Your task to perform on an android device: Show me popular games on the Play Store Image 0: 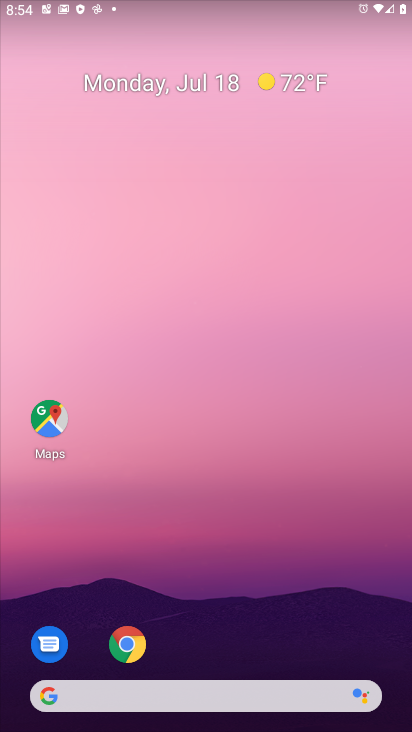
Step 0: drag from (399, 688) to (257, 113)
Your task to perform on an android device: Show me popular games on the Play Store Image 1: 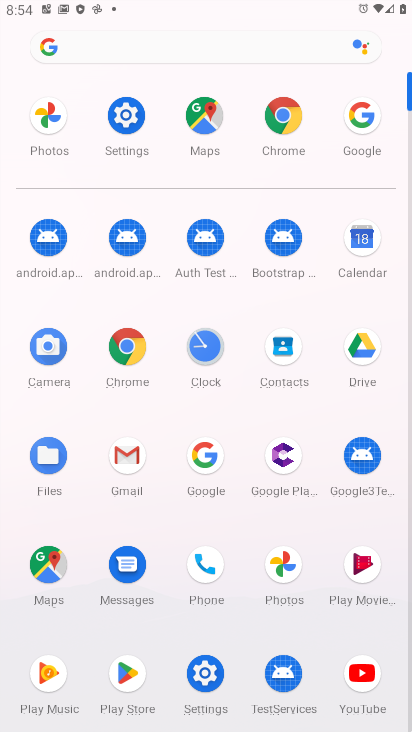
Step 1: click (133, 678)
Your task to perform on an android device: Show me popular games on the Play Store Image 2: 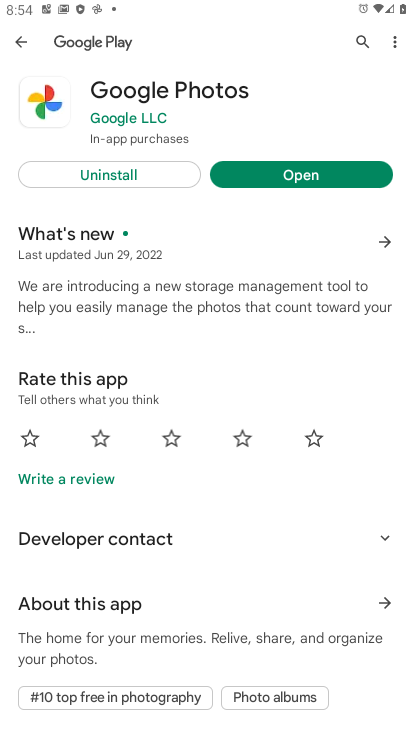
Step 2: press back button
Your task to perform on an android device: Show me popular games on the Play Store Image 3: 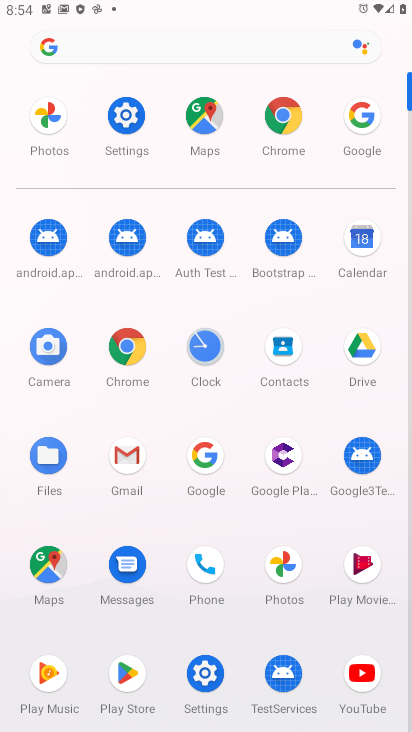
Step 3: click (130, 682)
Your task to perform on an android device: Show me popular games on the Play Store Image 4: 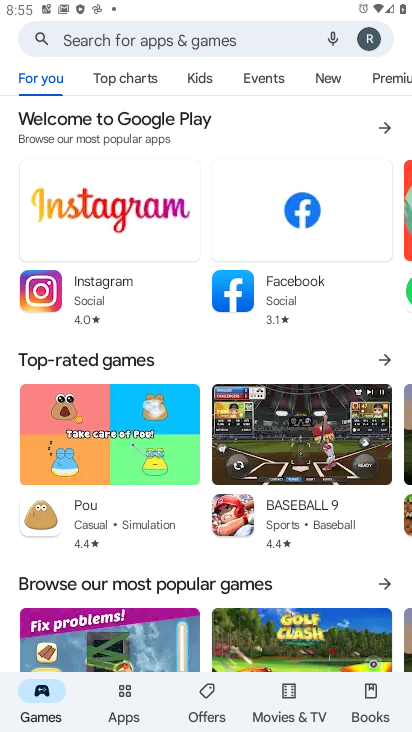
Step 4: click (164, 46)
Your task to perform on an android device: Show me popular games on the Play Store Image 5: 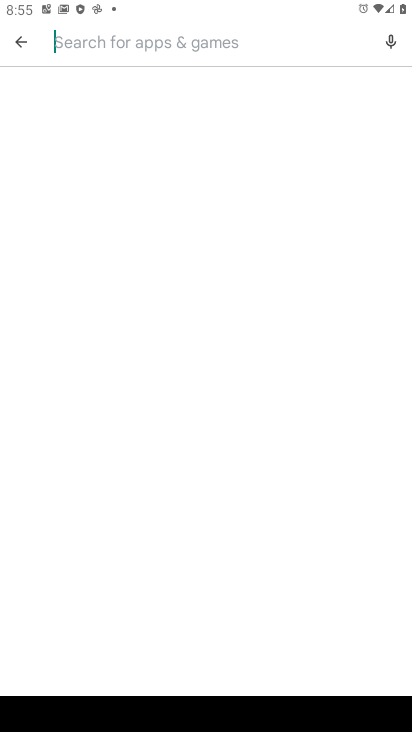
Step 5: type "popular games"
Your task to perform on an android device: Show me popular games on the Play Store Image 6: 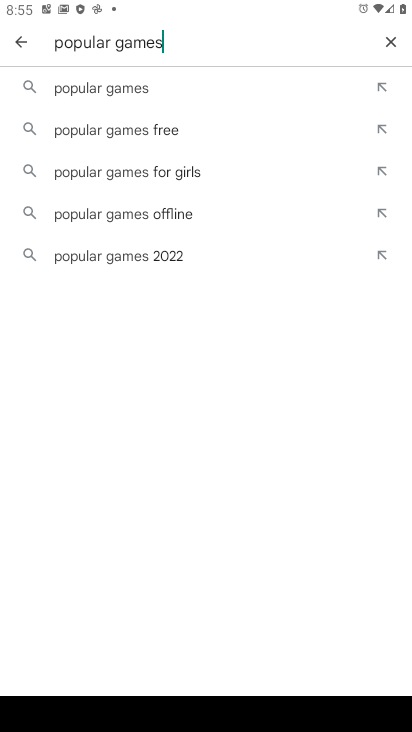
Step 6: click (103, 87)
Your task to perform on an android device: Show me popular games on the Play Store Image 7: 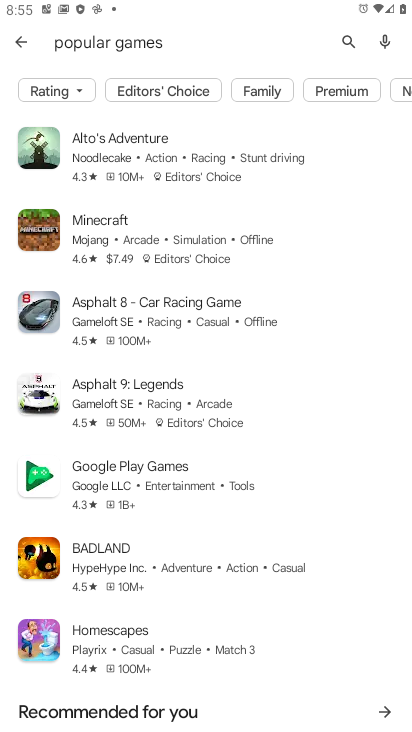
Step 7: task complete